Your task to perform on an android device: Show me productivity apps on the Play Store Image 0: 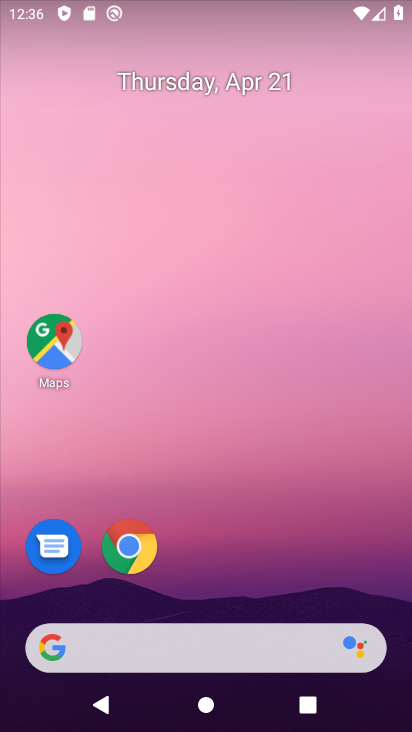
Step 0: drag from (257, 570) to (241, 123)
Your task to perform on an android device: Show me productivity apps on the Play Store Image 1: 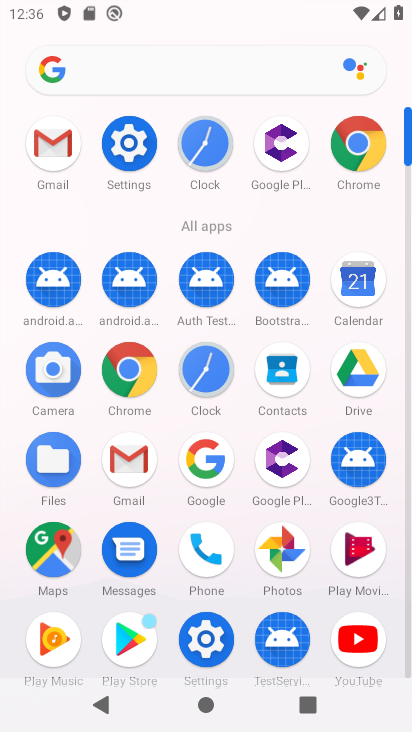
Step 1: click (125, 637)
Your task to perform on an android device: Show me productivity apps on the Play Store Image 2: 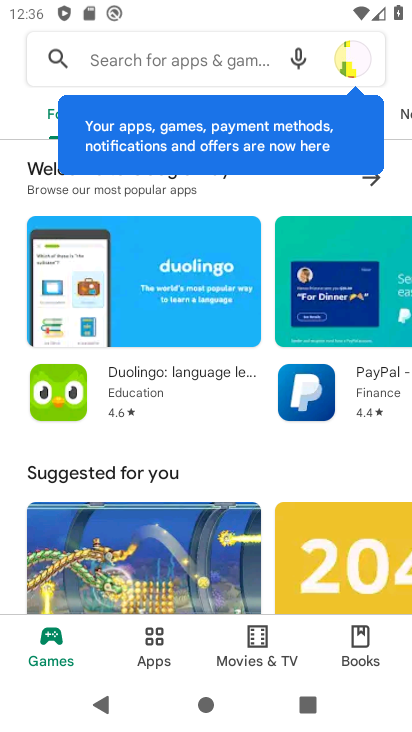
Step 2: click (144, 654)
Your task to perform on an android device: Show me productivity apps on the Play Store Image 3: 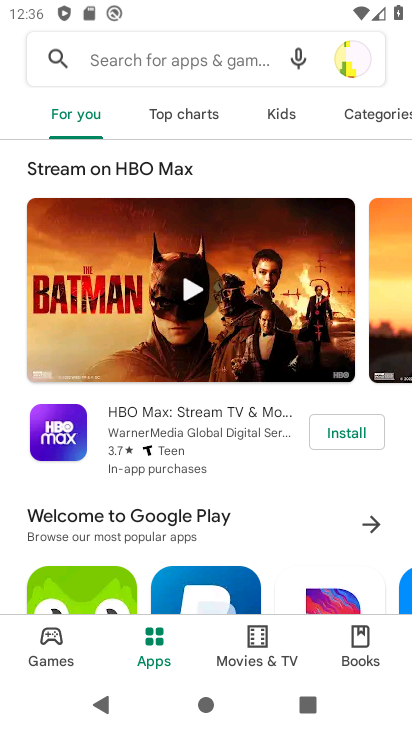
Step 3: click (385, 118)
Your task to perform on an android device: Show me productivity apps on the Play Store Image 4: 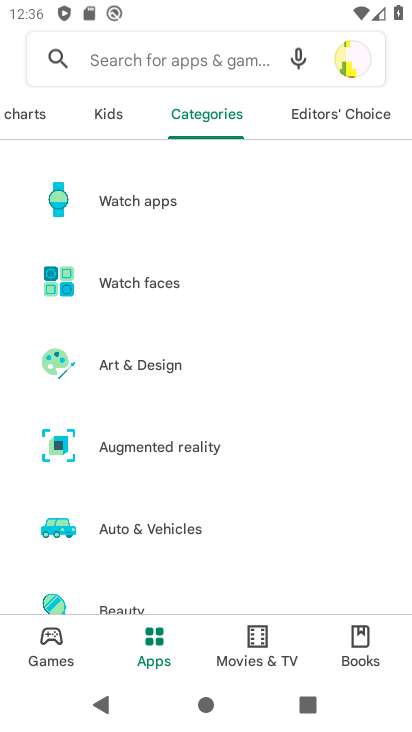
Step 4: drag from (216, 609) to (238, 242)
Your task to perform on an android device: Show me productivity apps on the Play Store Image 5: 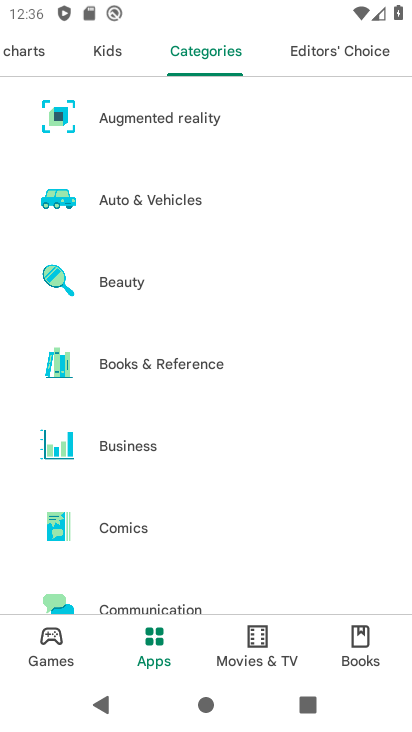
Step 5: drag from (184, 559) to (198, 215)
Your task to perform on an android device: Show me productivity apps on the Play Store Image 6: 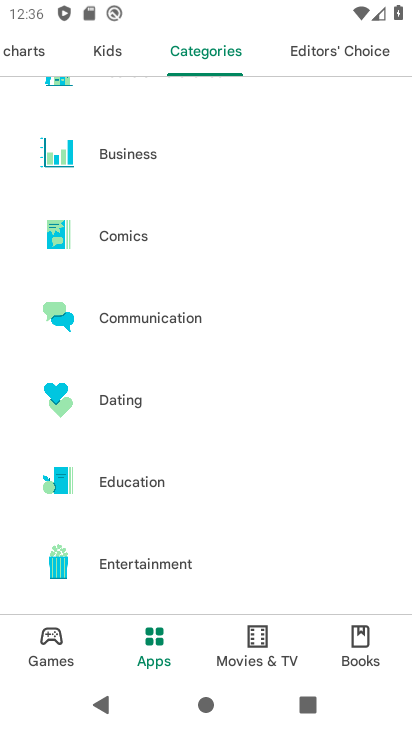
Step 6: drag from (207, 535) to (221, 247)
Your task to perform on an android device: Show me productivity apps on the Play Store Image 7: 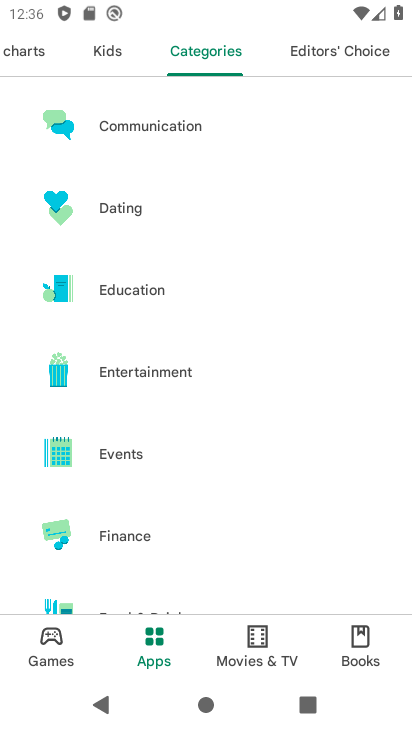
Step 7: drag from (227, 523) to (244, 208)
Your task to perform on an android device: Show me productivity apps on the Play Store Image 8: 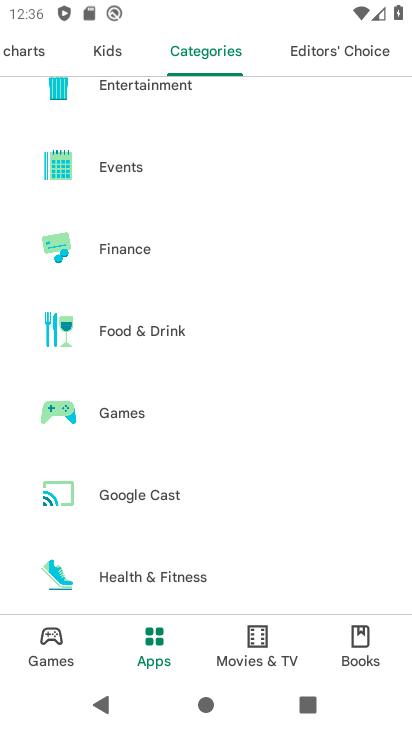
Step 8: drag from (209, 549) to (205, 265)
Your task to perform on an android device: Show me productivity apps on the Play Store Image 9: 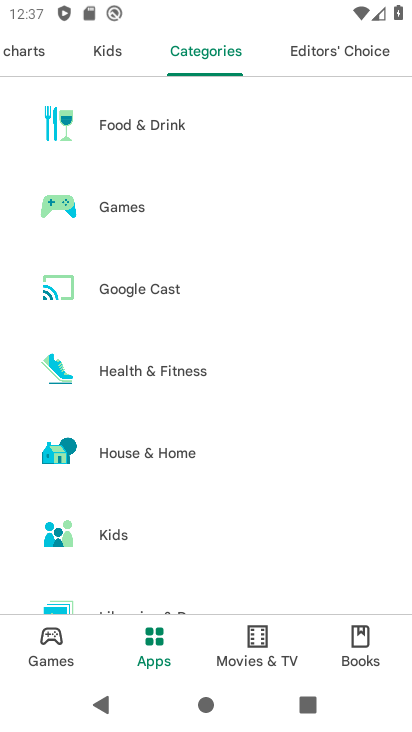
Step 9: drag from (179, 574) to (178, 164)
Your task to perform on an android device: Show me productivity apps on the Play Store Image 10: 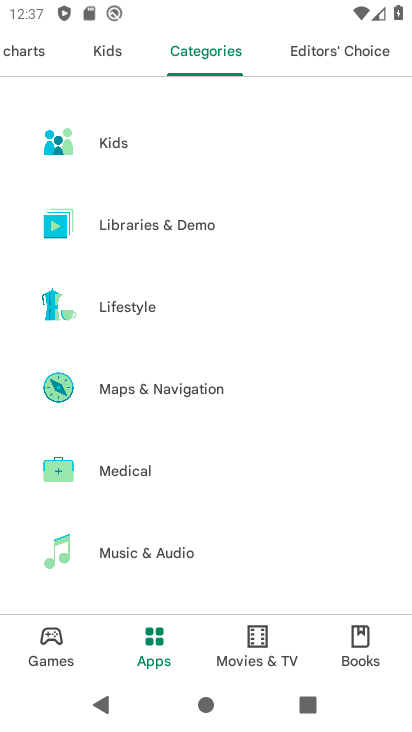
Step 10: drag from (209, 552) to (221, 275)
Your task to perform on an android device: Show me productivity apps on the Play Store Image 11: 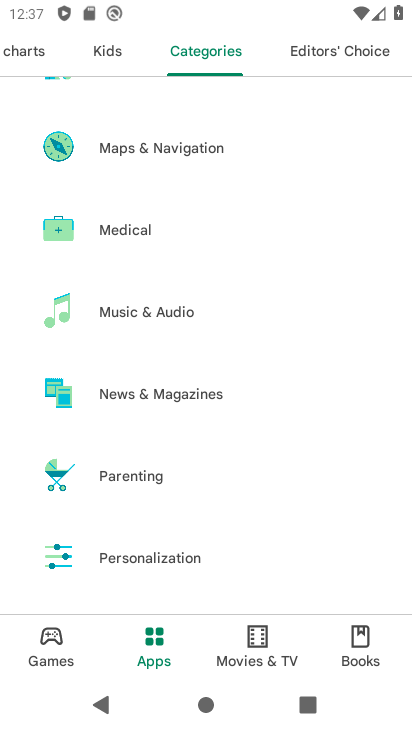
Step 11: drag from (214, 561) to (212, 314)
Your task to perform on an android device: Show me productivity apps on the Play Store Image 12: 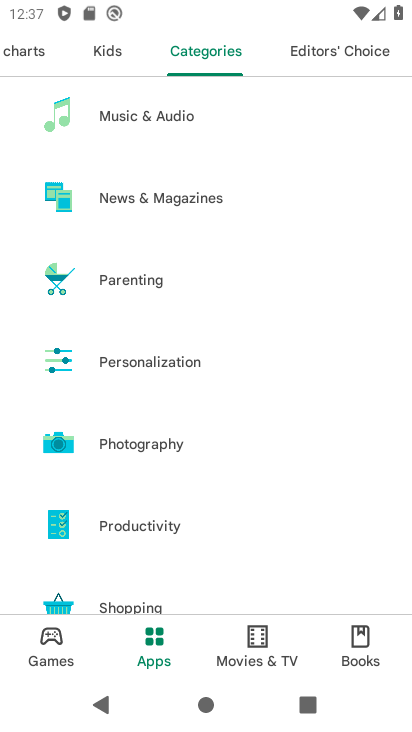
Step 12: click (170, 528)
Your task to perform on an android device: Show me productivity apps on the Play Store Image 13: 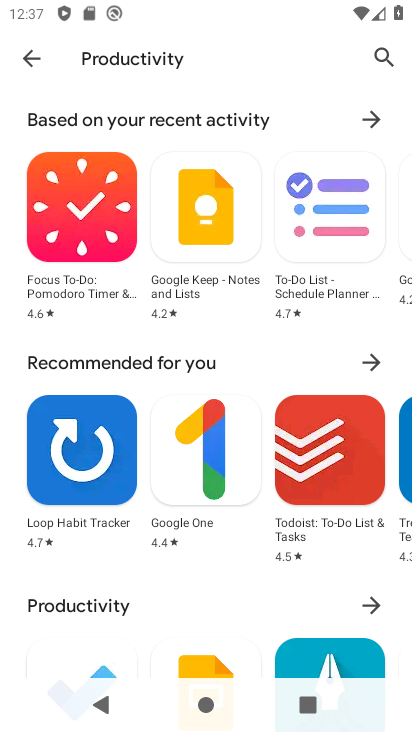
Step 13: task complete